Your task to perform on an android device: Open Wikipedia Image 0: 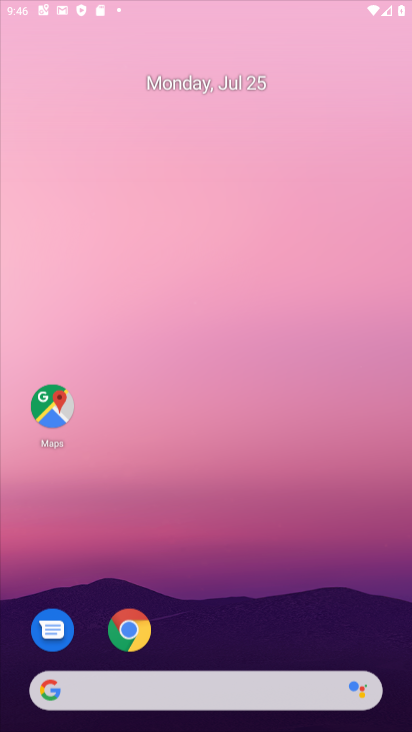
Step 0: press home button
Your task to perform on an android device: Open Wikipedia Image 1: 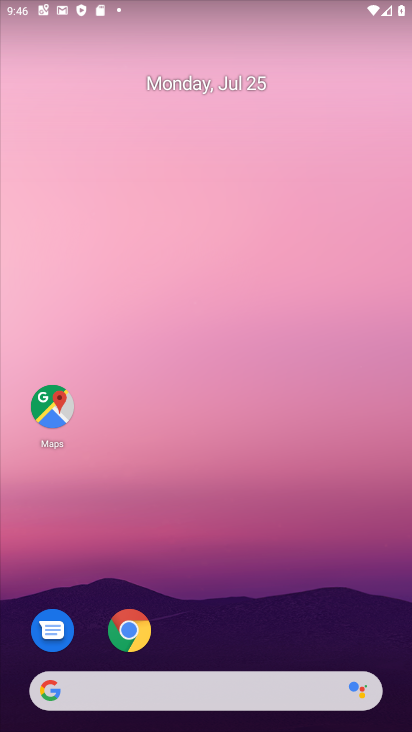
Step 1: click (49, 687)
Your task to perform on an android device: Open Wikipedia Image 2: 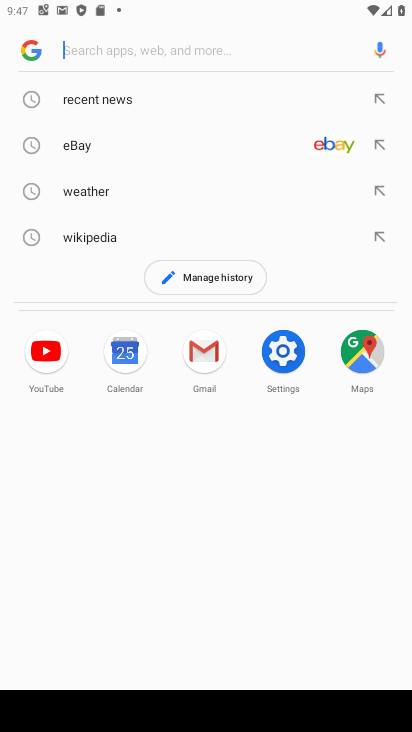
Step 2: click (94, 237)
Your task to perform on an android device: Open Wikipedia Image 3: 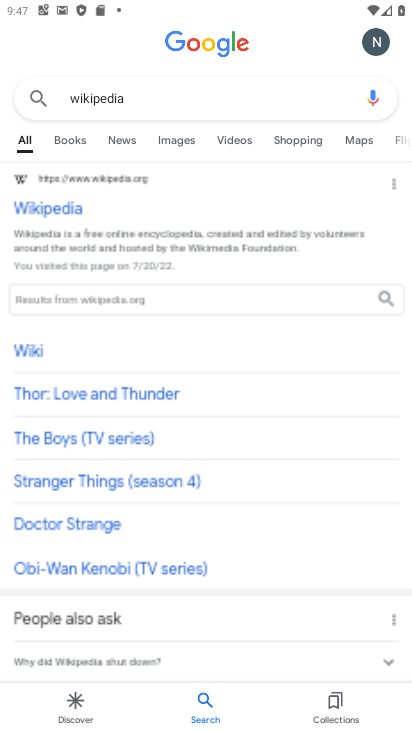
Step 3: click (39, 211)
Your task to perform on an android device: Open Wikipedia Image 4: 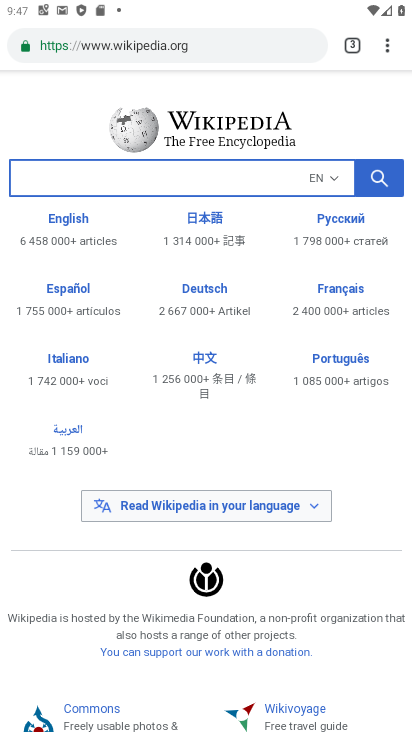
Step 4: task complete